Your task to perform on an android device: Clear the cart on amazon.com. Search for dell xps on amazon.com, select the first entry, add it to the cart, then select checkout. Image 0: 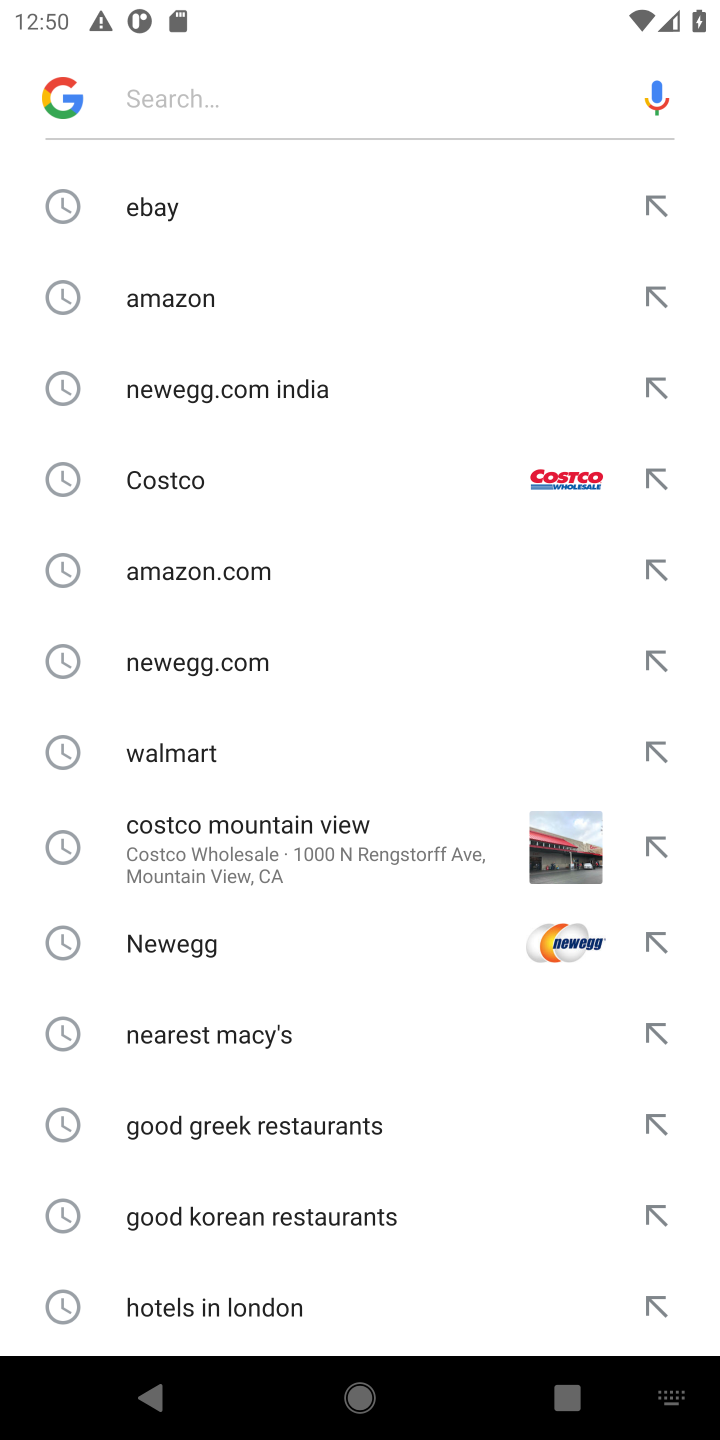
Step 0: press home button
Your task to perform on an android device: Clear the cart on amazon.com. Search for dell xps on amazon.com, select the first entry, add it to the cart, then select checkout. Image 1: 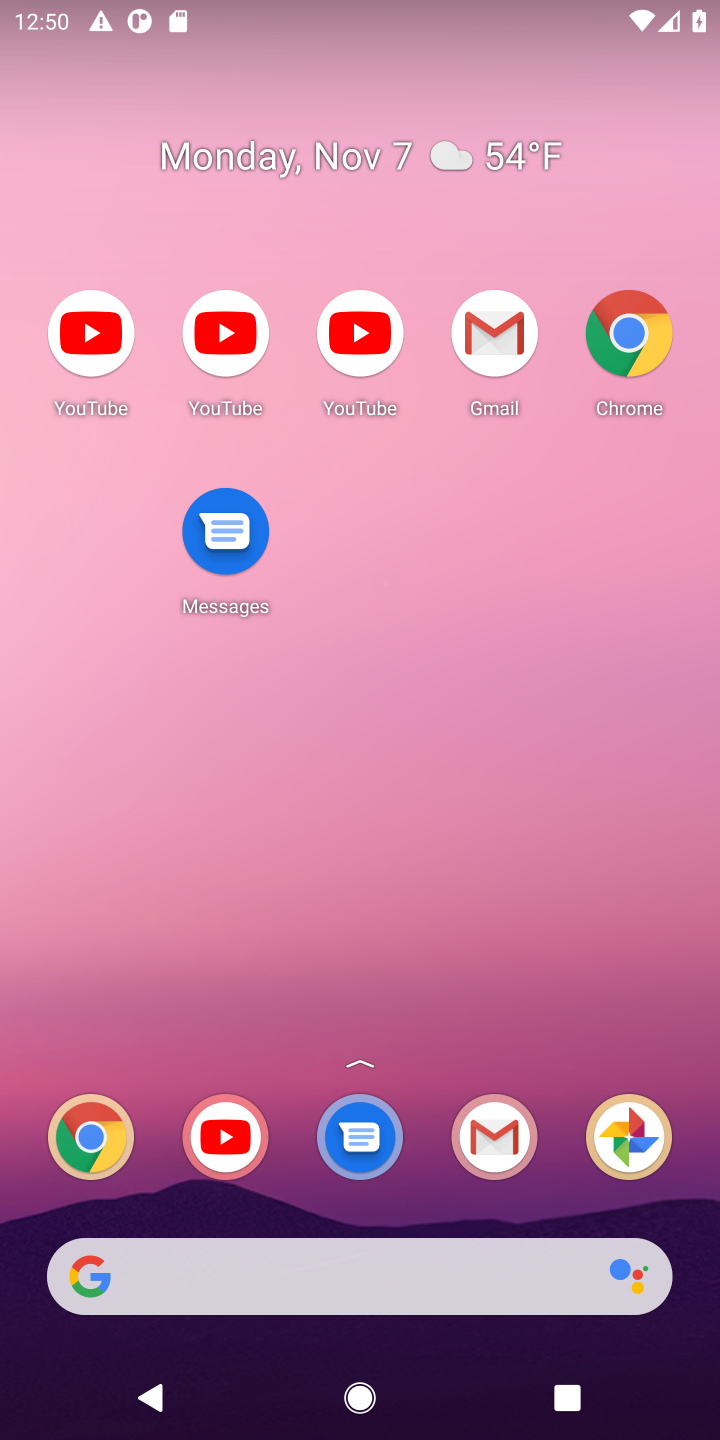
Step 1: drag from (433, 1216) to (430, 266)
Your task to perform on an android device: Clear the cart on amazon.com. Search for dell xps on amazon.com, select the first entry, add it to the cart, then select checkout. Image 2: 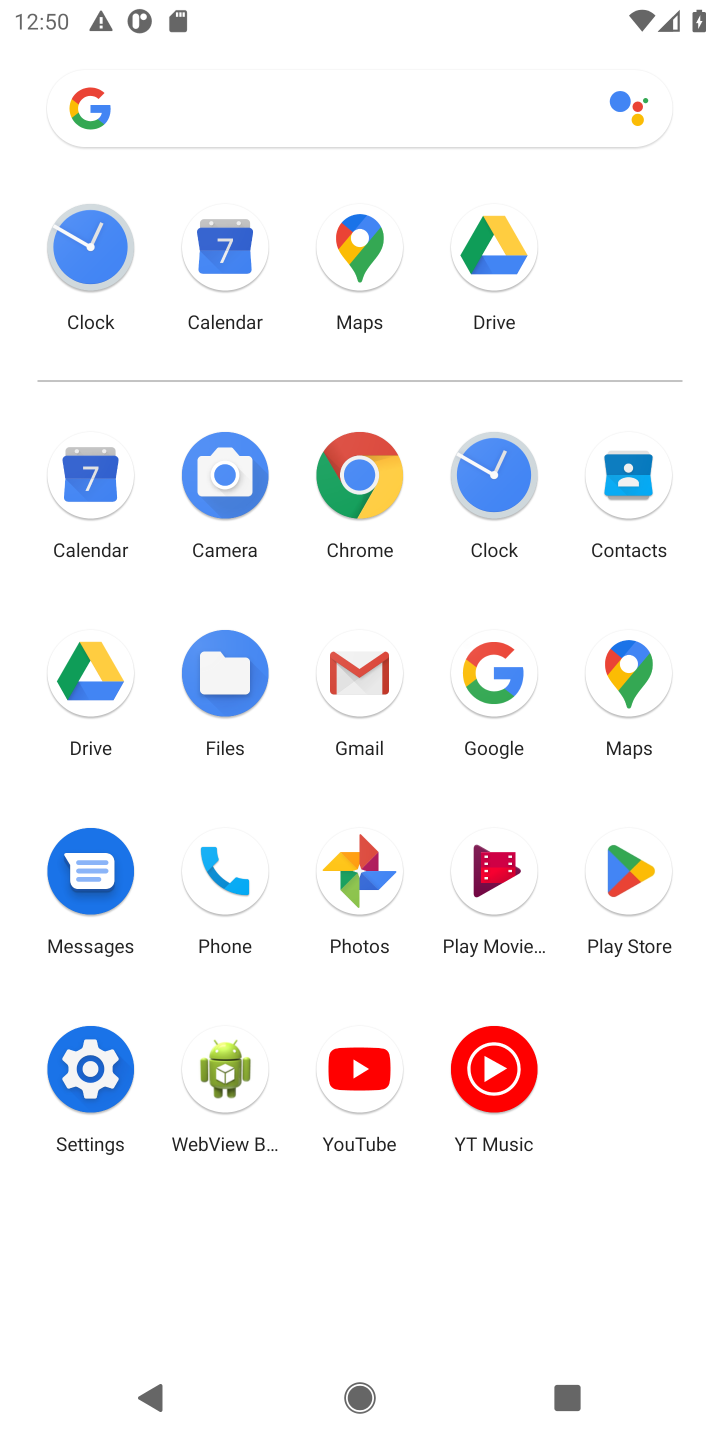
Step 2: click (355, 471)
Your task to perform on an android device: Clear the cart on amazon.com. Search for dell xps on amazon.com, select the first entry, add it to the cart, then select checkout. Image 3: 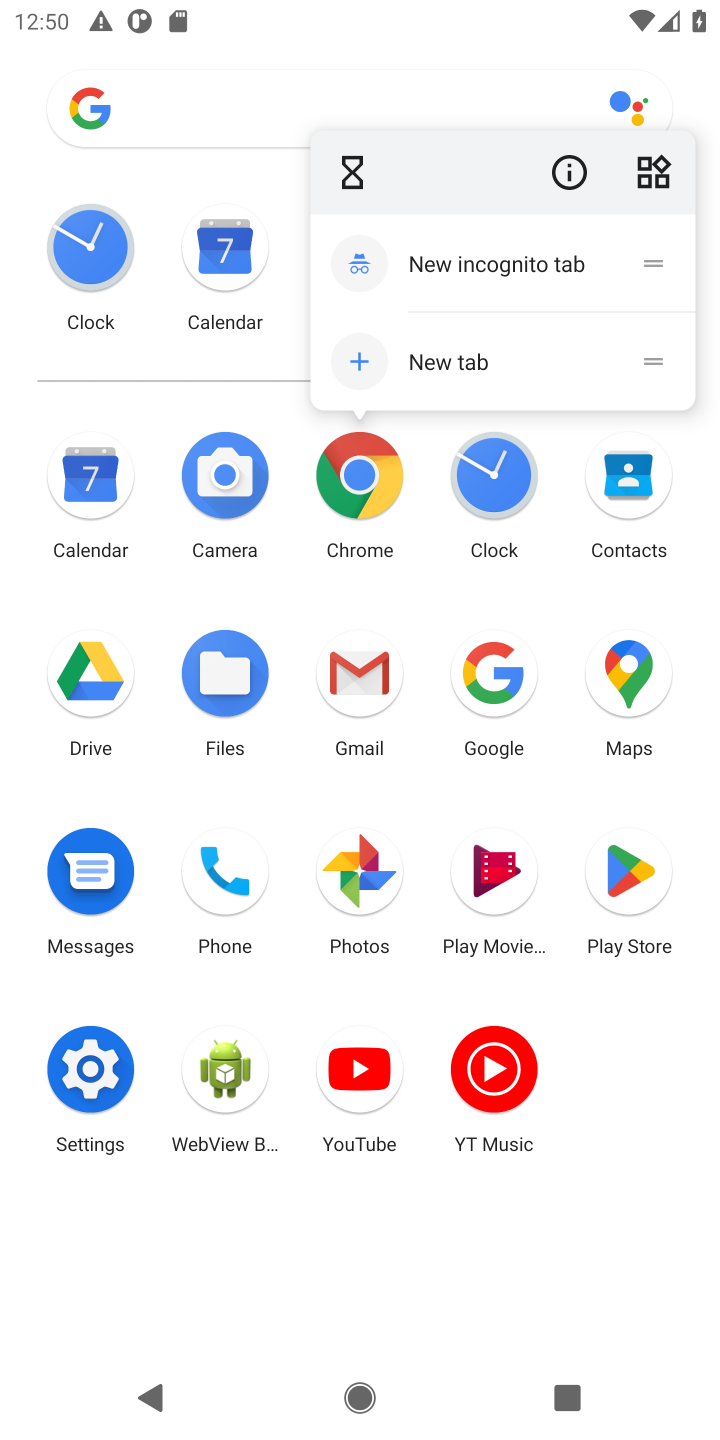
Step 3: click (355, 471)
Your task to perform on an android device: Clear the cart on amazon.com. Search for dell xps on amazon.com, select the first entry, add it to the cart, then select checkout. Image 4: 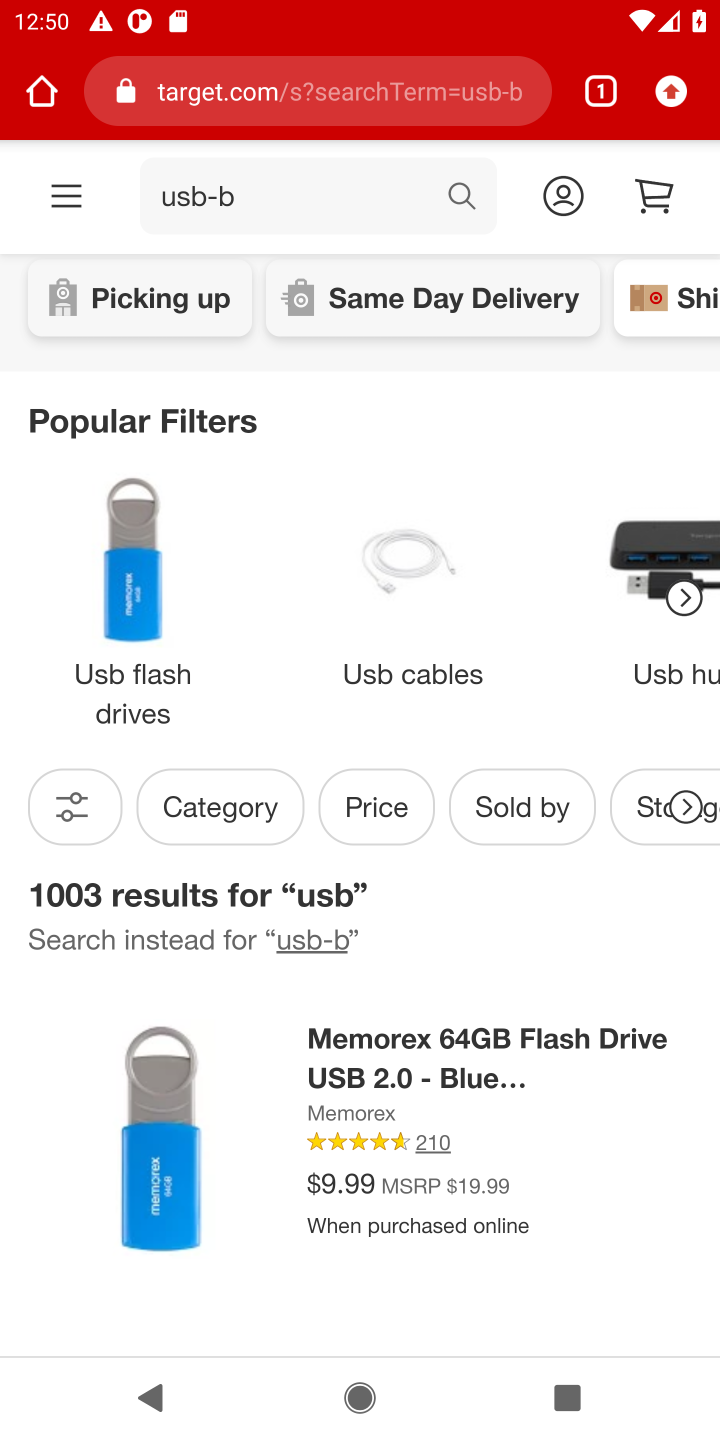
Step 4: click (425, 85)
Your task to perform on an android device: Clear the cart on amazon.com. Search for dell xps on amazon.com, select the first entry, add it to the cart, then select checkout. Image 5: 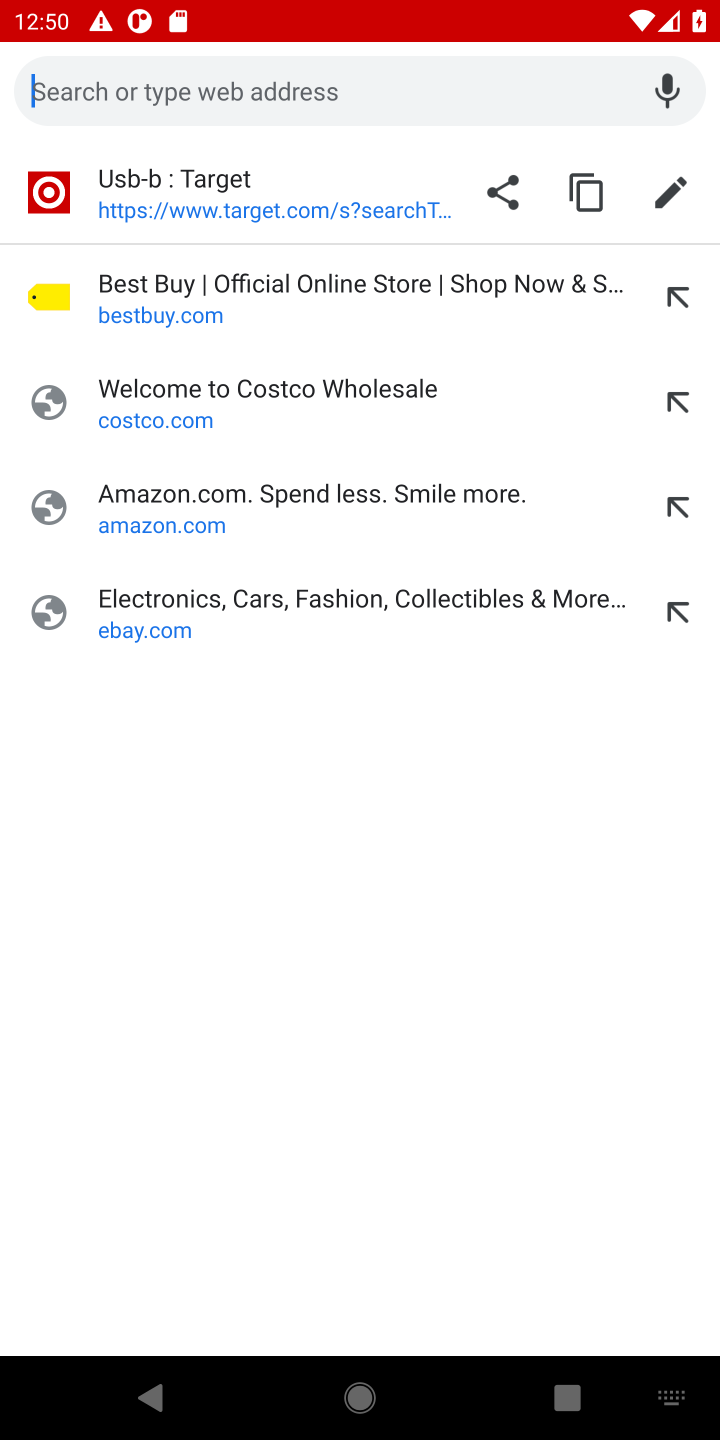
Step 5: type "amazon.com"
Your task to perform on an android device: Clear the cart on amazon.com. Search for dell xps on amazon.com, select the first entry, add it to the cart, then select checkout. Image 6: 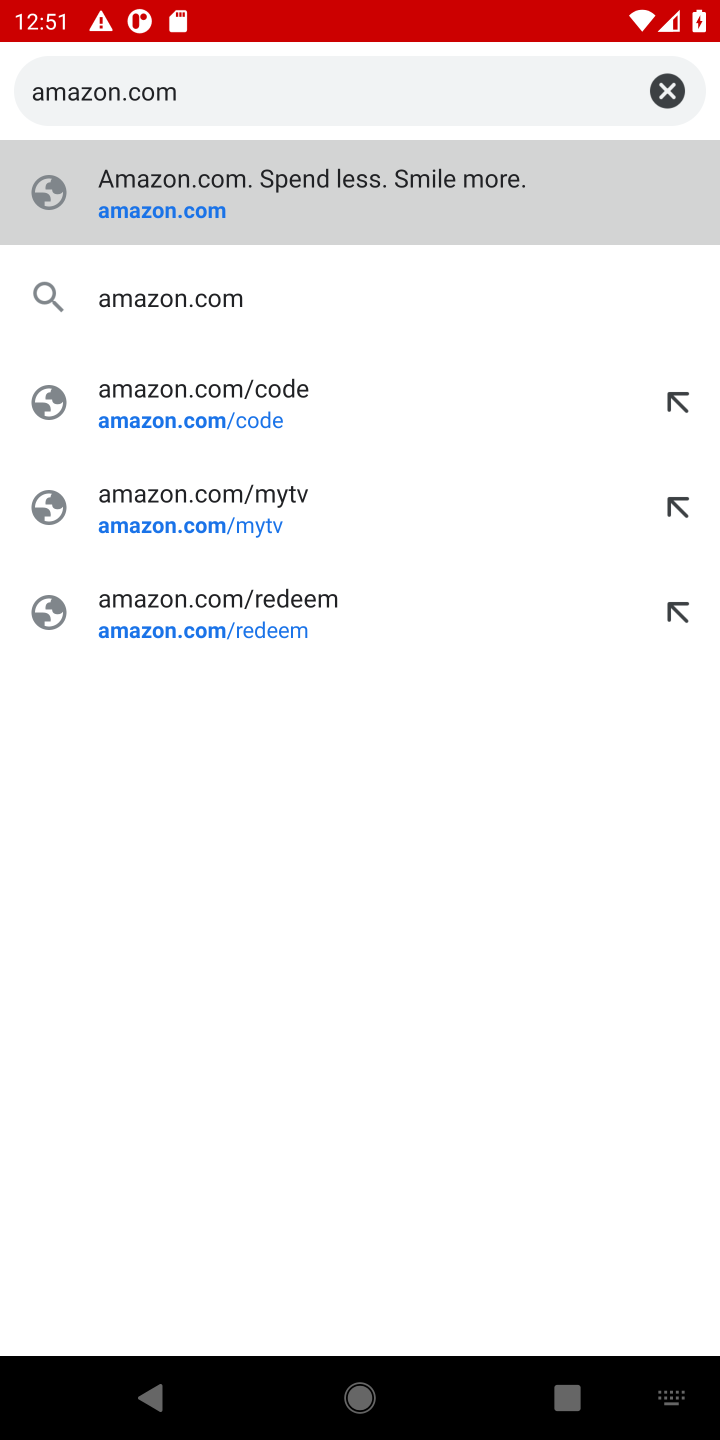
Step 6: press enter
Your task to perform on an android device: Clear the cart on amazon.com. Search for dell xps on amazon.com, select the first entry, add it to the cart, then select checkout. Image 7: 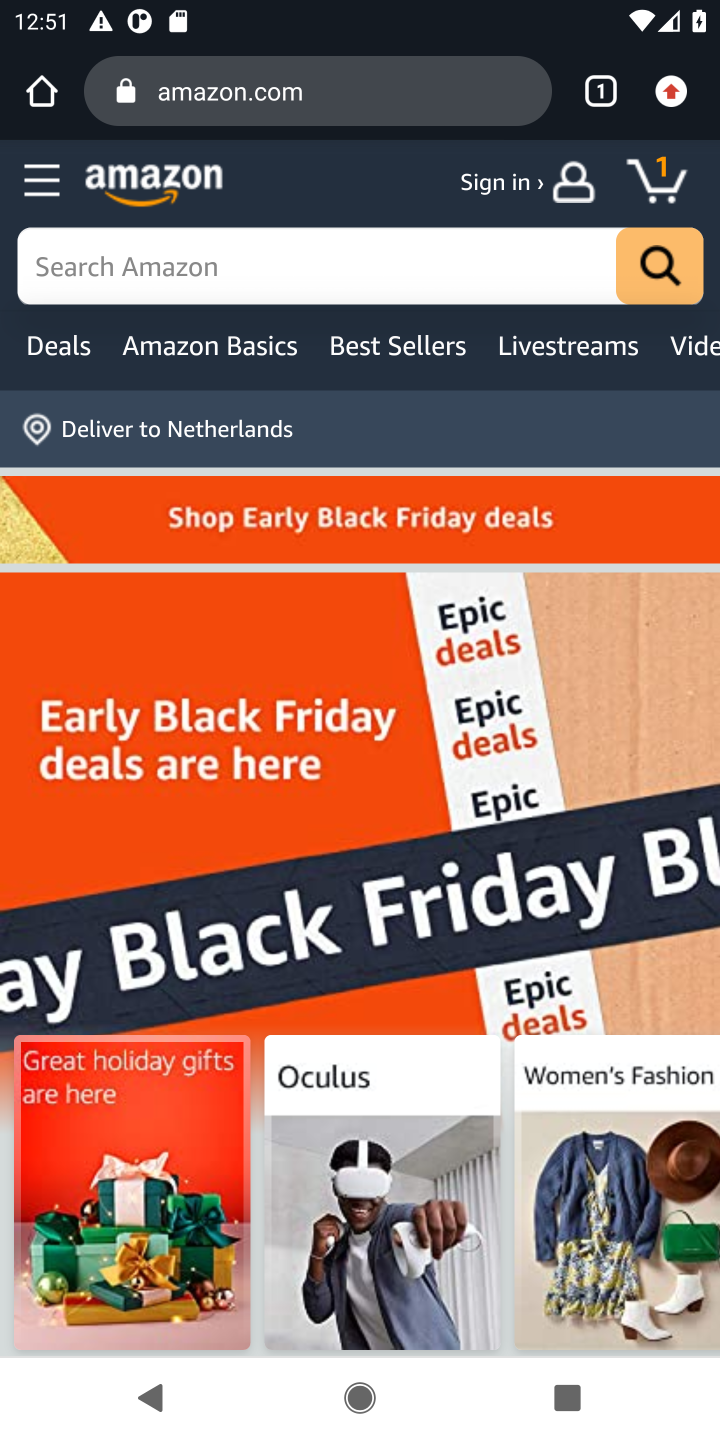
Step 7: click (664, 192)
Your task to perform on an android device: Clear the cart on amazon.com. Search for dell xps on amazon.com, select the first entry, add it to the cart, then select checkout. Image 8: 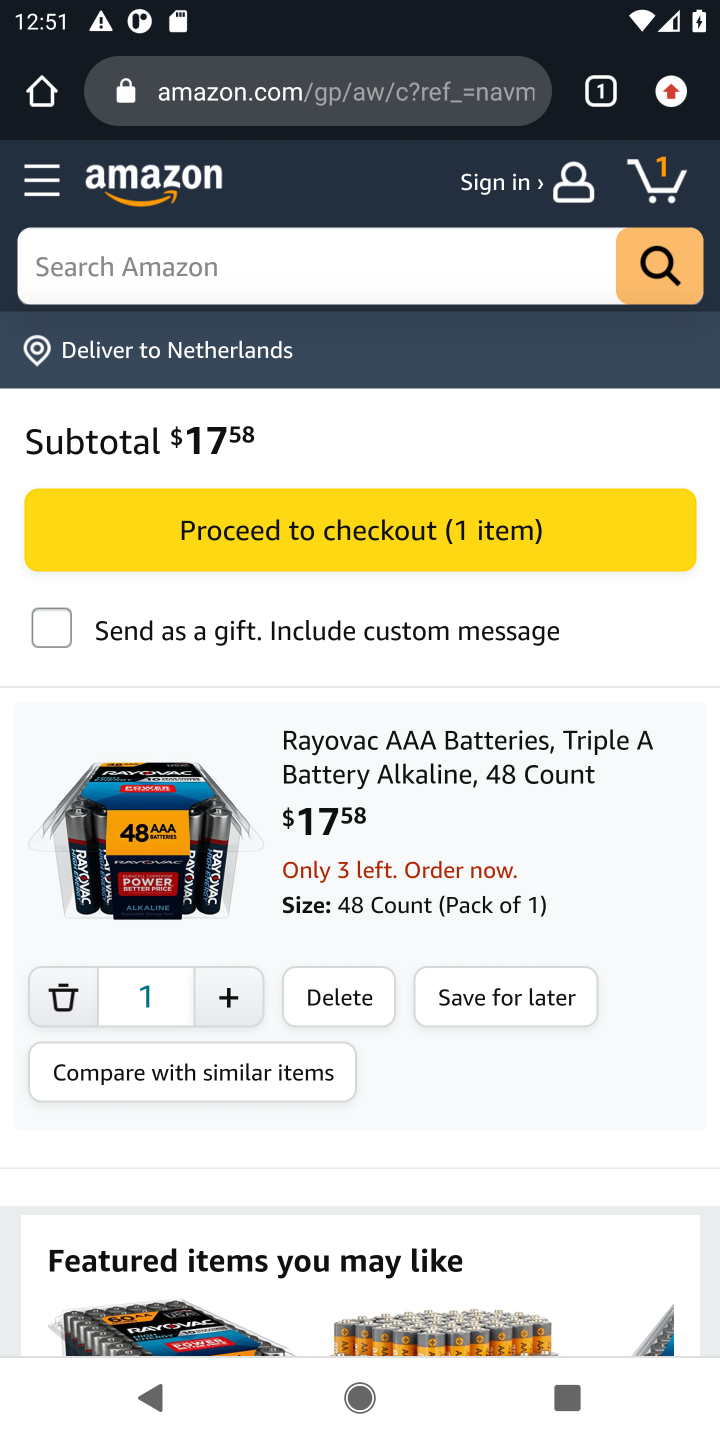
Step 8: click (61, 1009)
Your task to perform on an android device: Clear the cart on amazon.com. Search for dell xps on amazon.com, select the first entry, add it to the cart, then select checkout. Image 9: 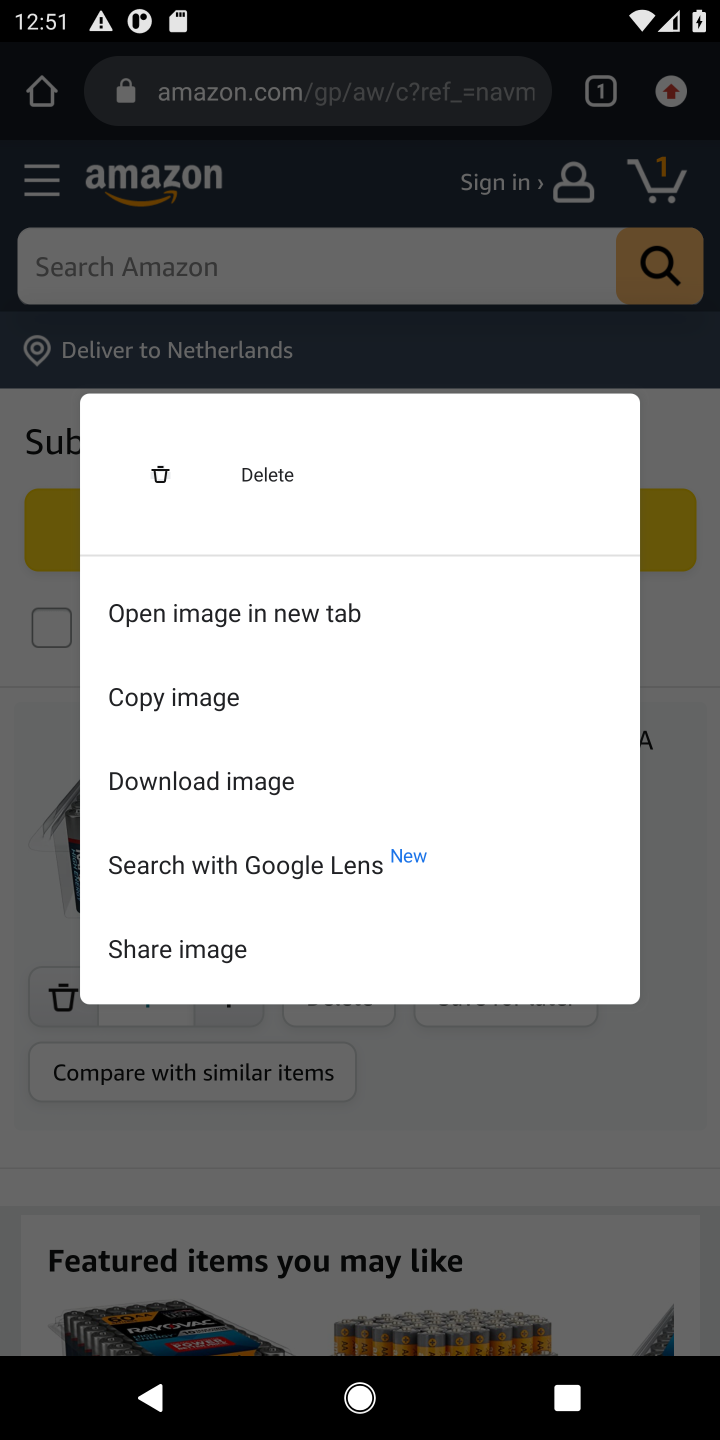
Step 9: click (61, 1009)
Your task to perform on an android device: Clear the cart on amazon.com. Search for dell xps on amazon.com, select the first entry, add it to the cart, then select checkout. Image 10: 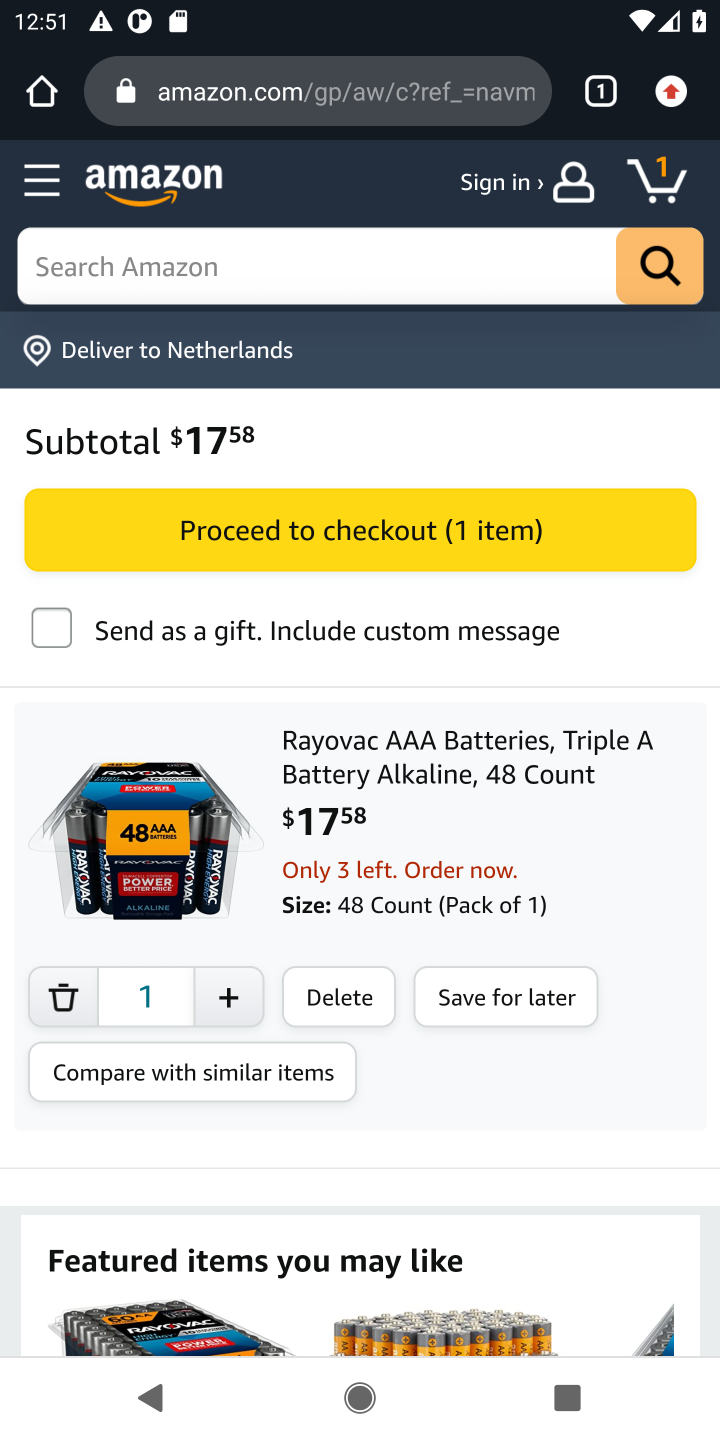
Step 10: click (48, 1001)
Your task to perform on an android device: Clear the cart on amazon.com. Search for dell xps on amazon.com, select the first entry, add it to the cart, then select checkout. Image 11: 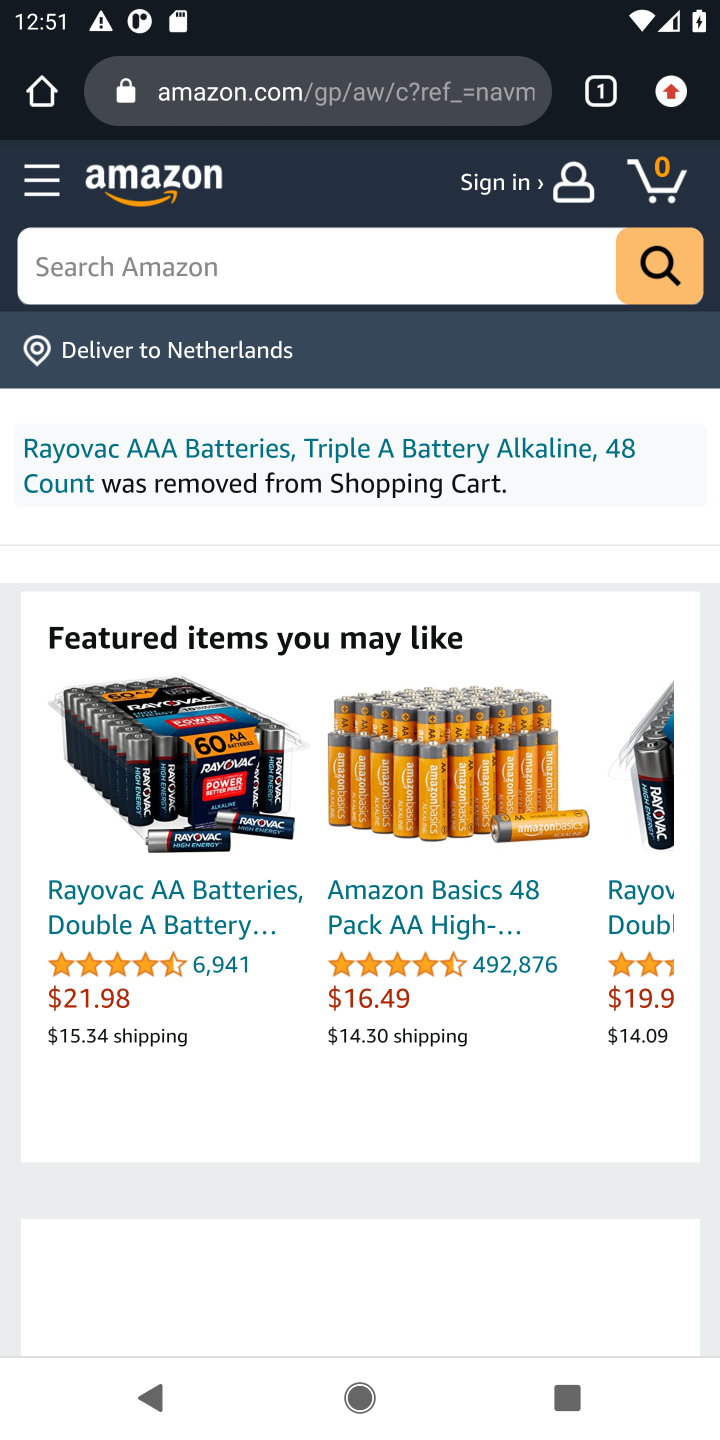
Step 11: click (322, 275)
Your task to perform on an android device: Clear the cart on amazon.com. Search for dell xps on amazon.com, select the first entry, add it to the cart, then select checkout. Image 12: 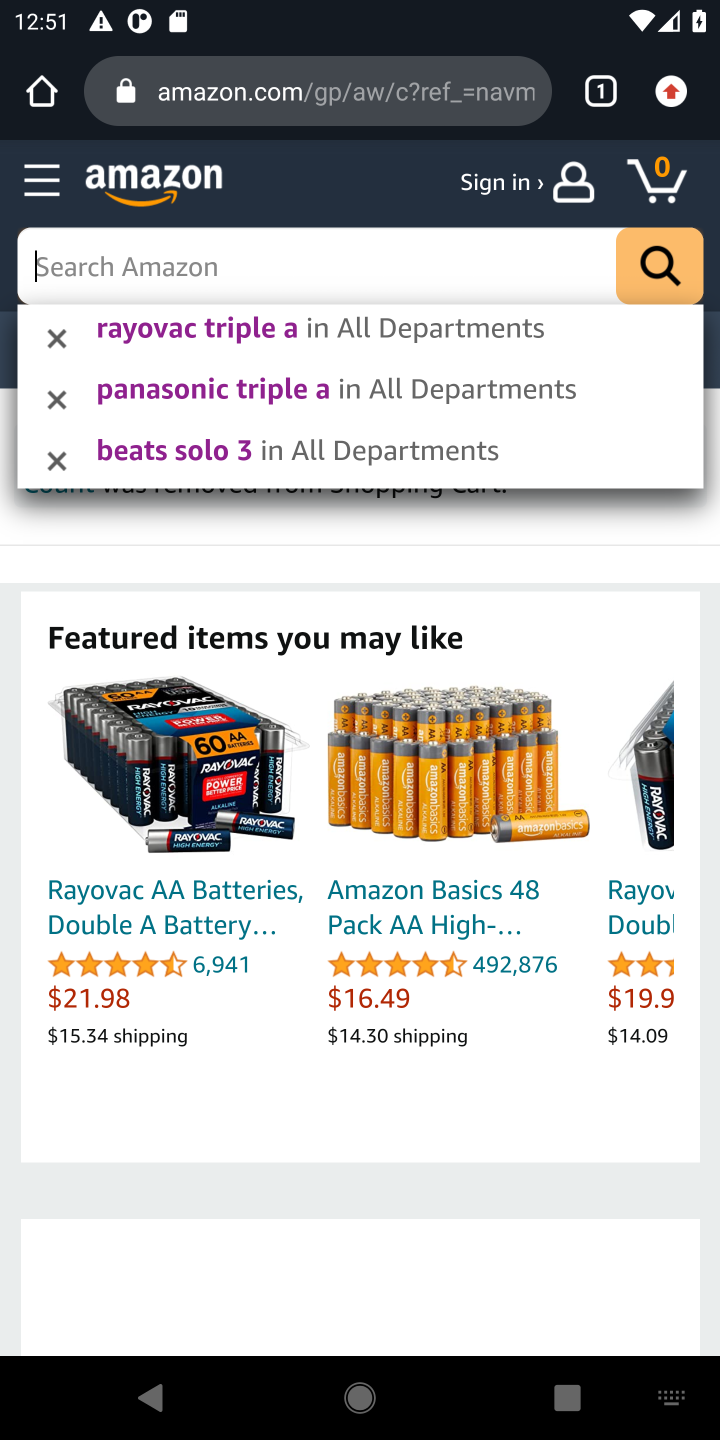
Step 12: type "dell xps"
Your task to perform on an android device: Clear the cart on amazon.com. Search for dell xps on amazon.com, select the first entry, add it to the cart, then select checkout. Image 13: 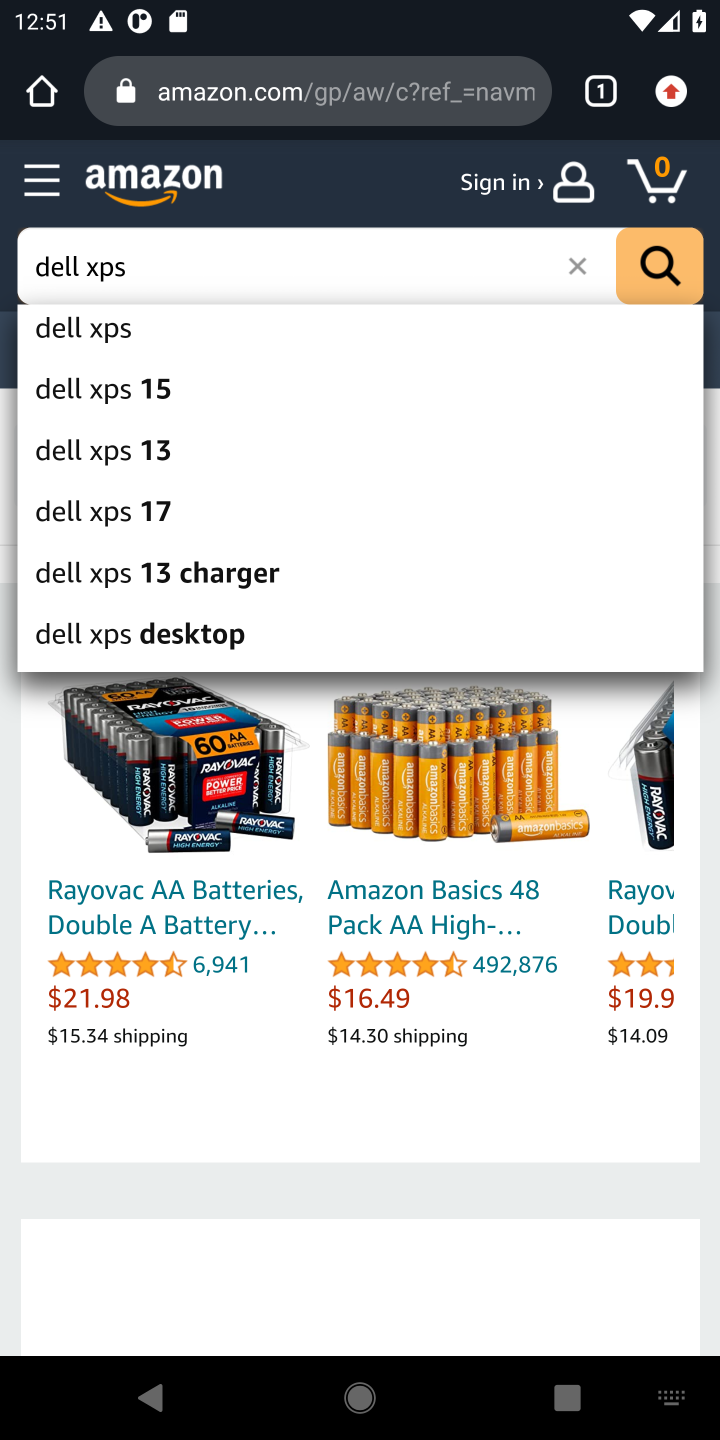
Step 13: press enter
Your task to perform on an android device: Clear the cart on amazon.com. Search for dell xps on amazon.com, select the first entry, add it to the cart, then select checkout. Image 14: 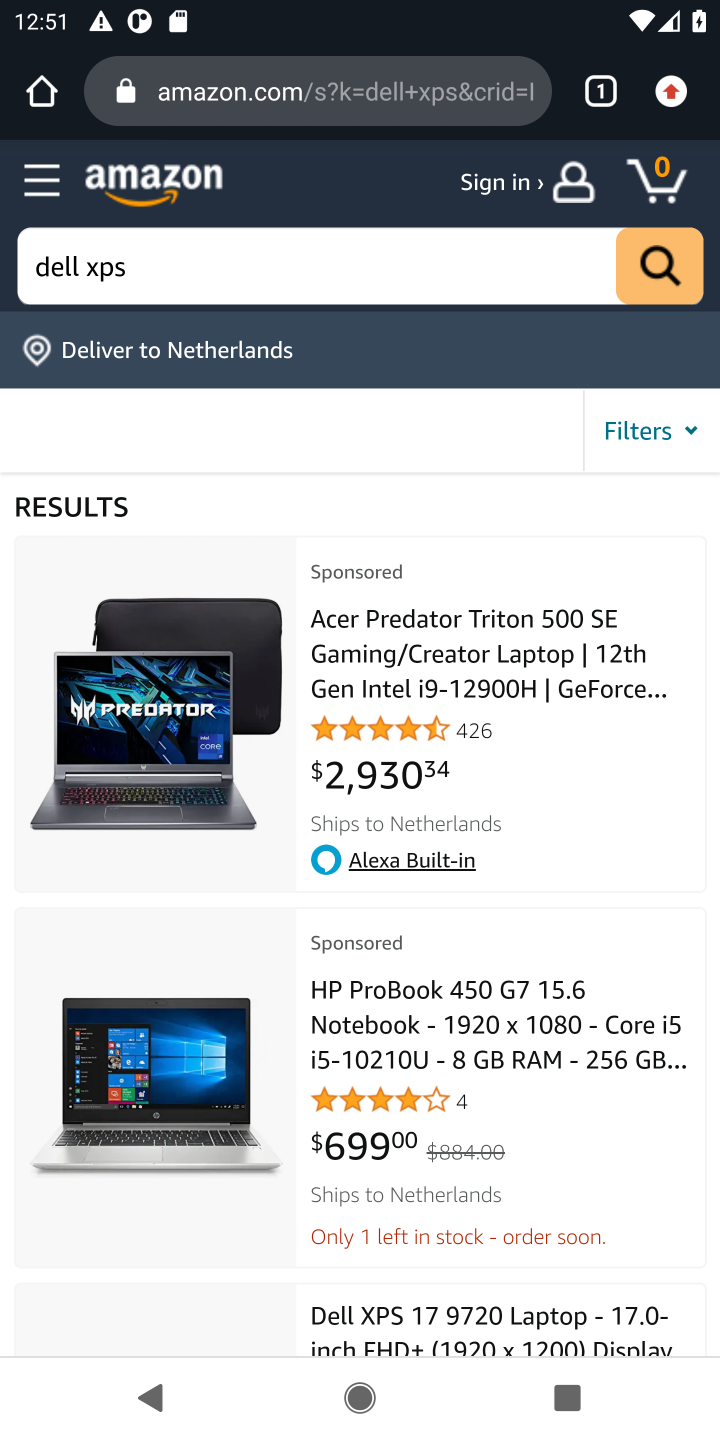
Step 14: drag from (471, 1259) to (393, 744)
Your task to perform on an android device: Clear the cart on amazon.com. Search for dell xps on amazon.com, select the first entry, add it to the cart, then select checkout. Image 15: 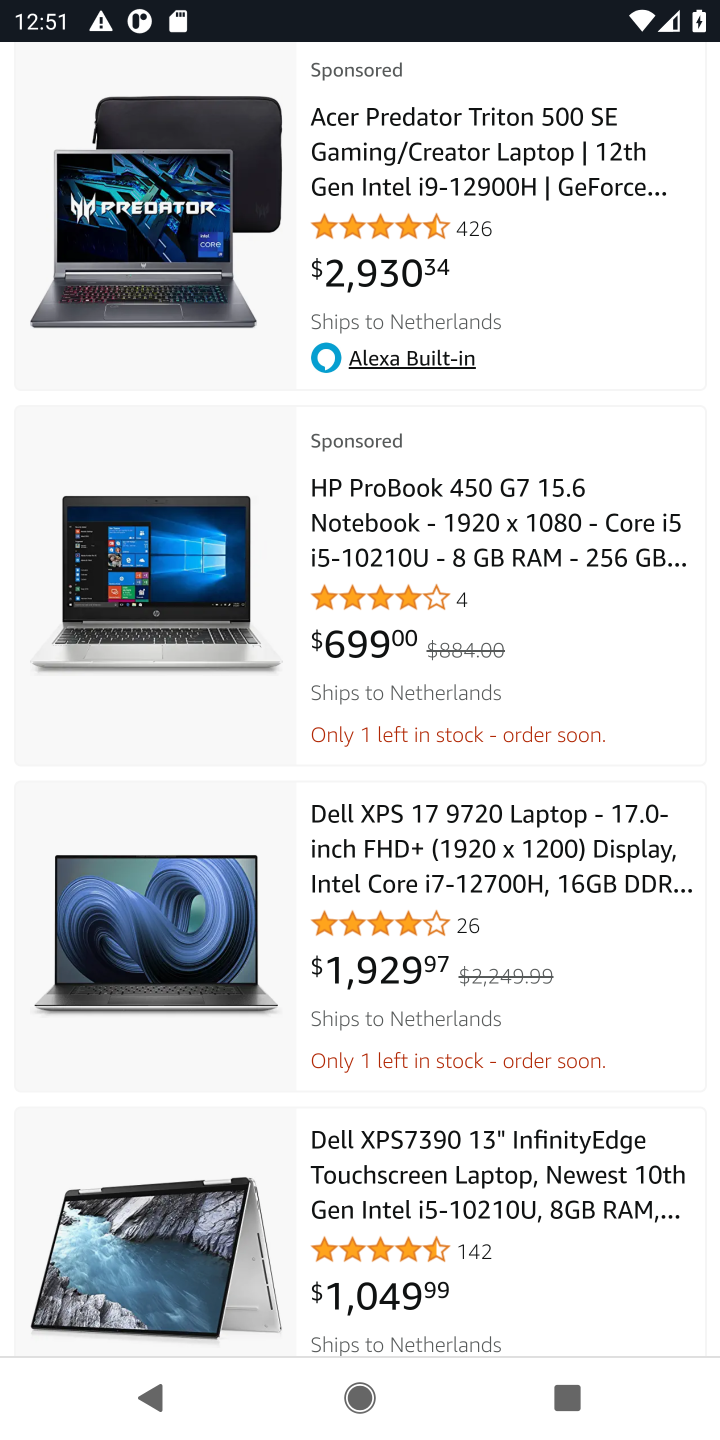
Step 15: click (417, 858)
Your task to perform on an android device: Clear the cart on amazon.com. Search for dell xps on amazon.com, select the first entry, add it to the cart, then select checkout. Image 16: 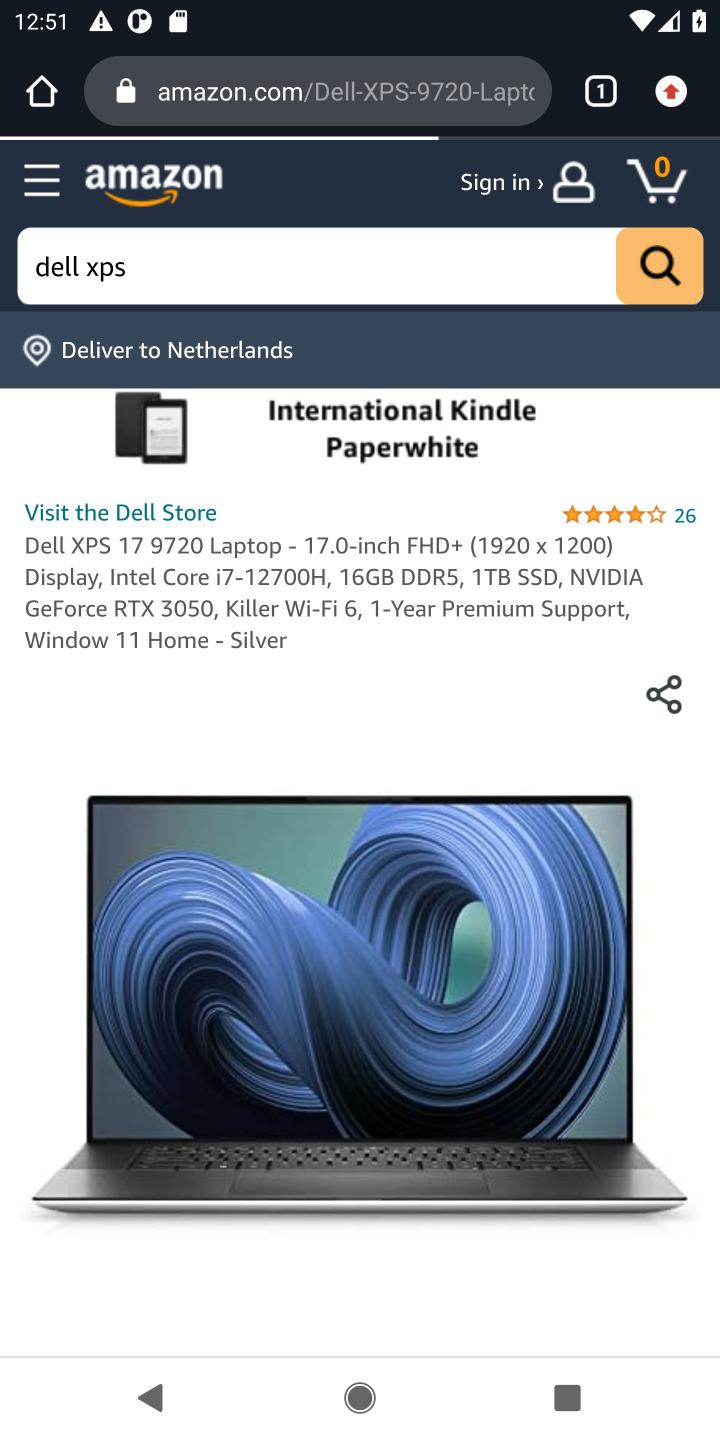
Step 16: drag from (341, 1148) to (405, 505)
Your task to perform on an android device: Clear the cart on amazon.com. Search for dell xps on amazon.com, select the first entry, add it to the cart, then select checkout. Image 17: 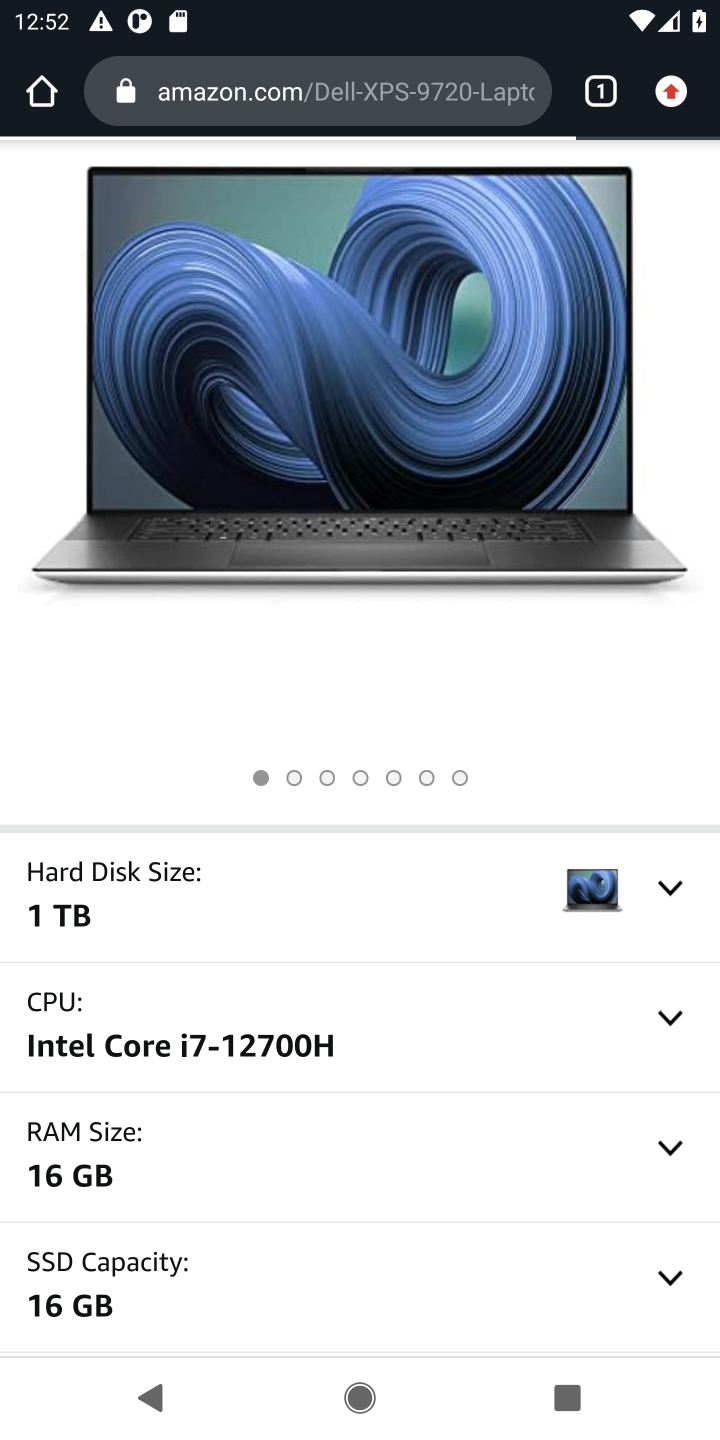
Step 17: drag from (372, 1049) to (403, 331)
Your task to perform on an android device: Clear the cart on amazon.com. Search for dell xps on amazon.com, select the first entry, add it to the cart, then select checkout. Image 18: 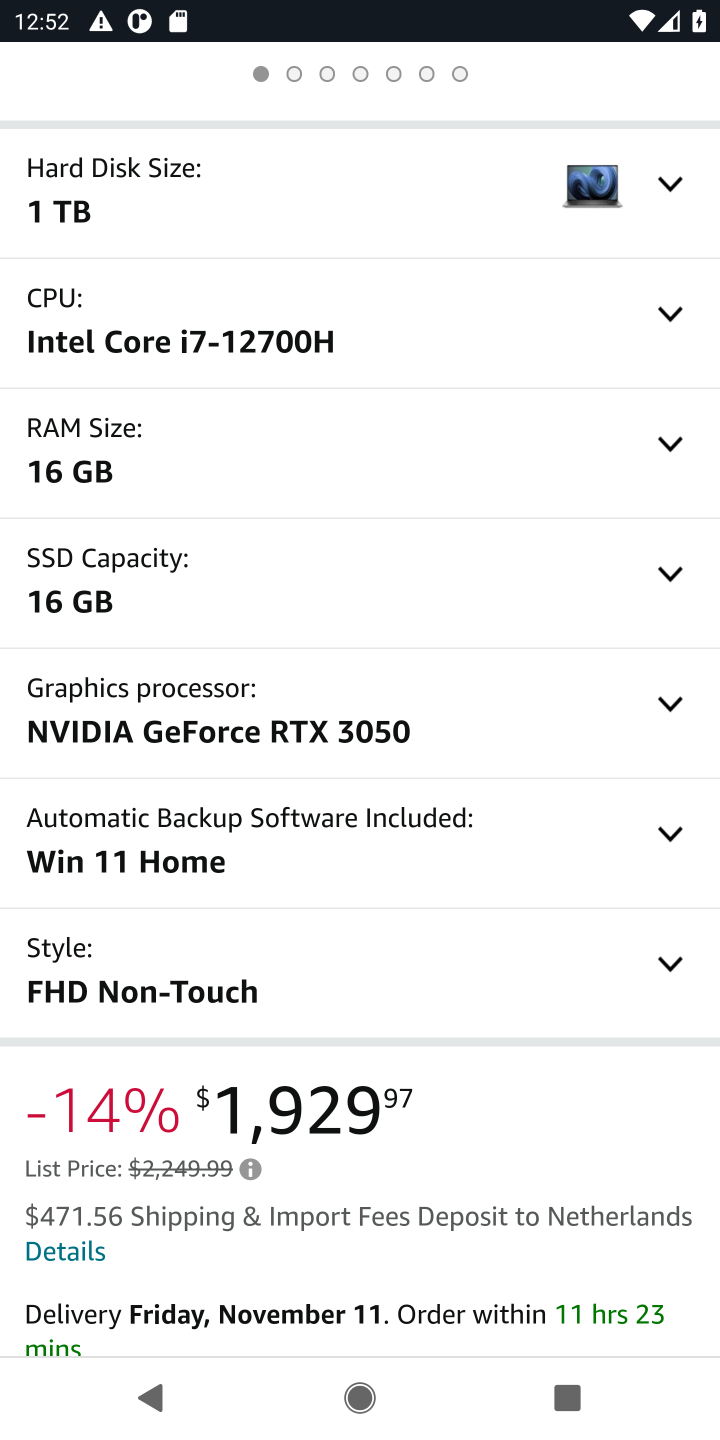
Step 18: drag from (306, 1134) to (283, 273)
Your task to perform on an android device: Clear the cart on amazon.com. Search for dell xps on amazon.com, select the first entry, add it to the cart, then select checkout. Image 19: 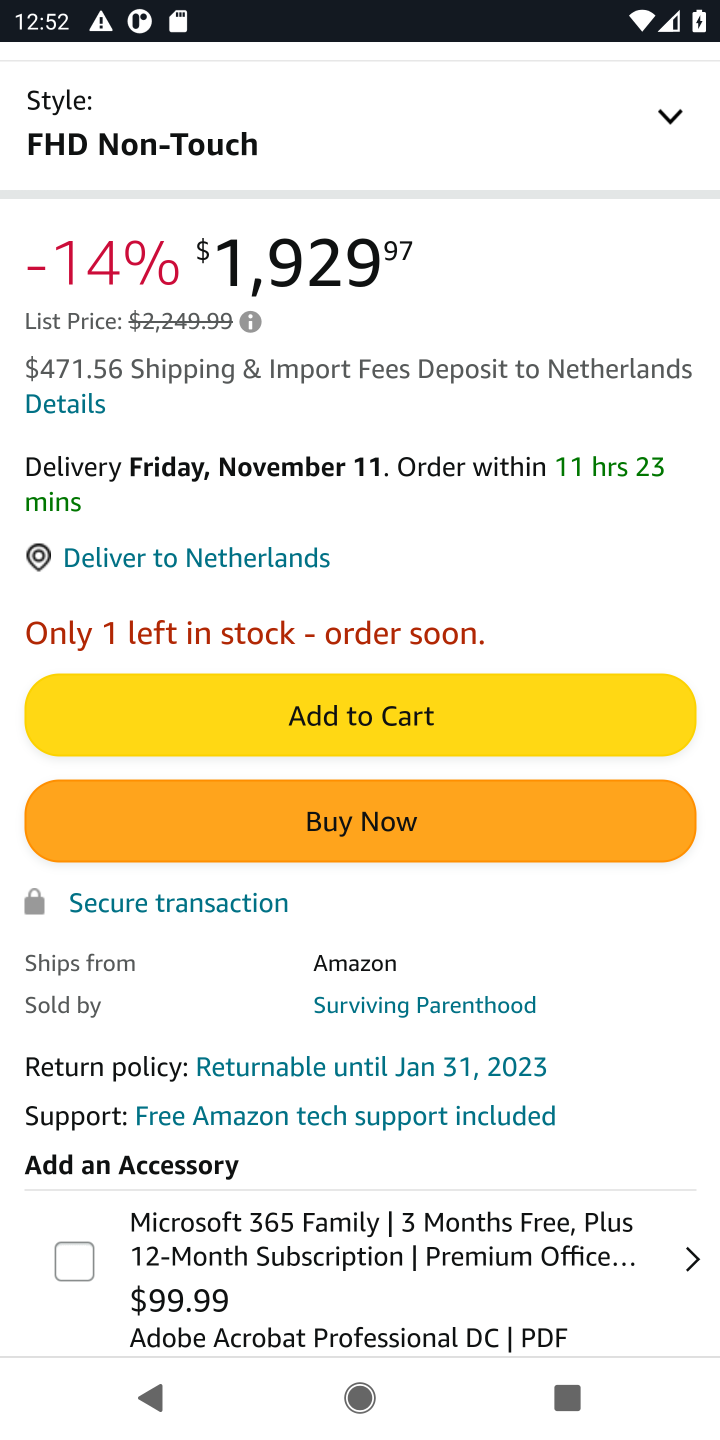
Step 19: click (391, 705)
Your task to perform on an android device: Clear the cart on amazon.com. Search for dell xps on amazon.com, select the first entry, add it to the cart, then select checkout. Image 20: 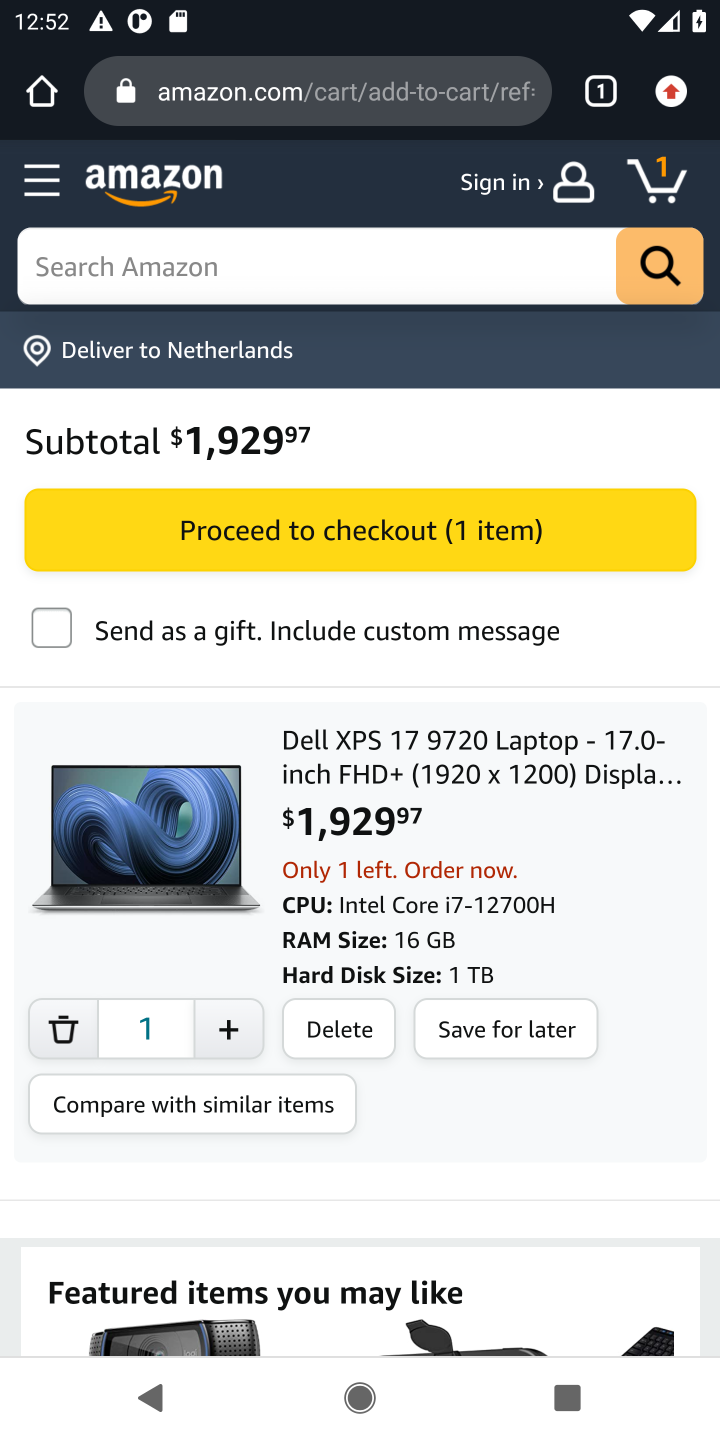
Step 20: click (413, 524)
Your task to perform on an android device: Clear the cart on amazon.com. Search for dell xps on amazon.com, select the first entry, add it to the cart, then select checkout. Image 21: 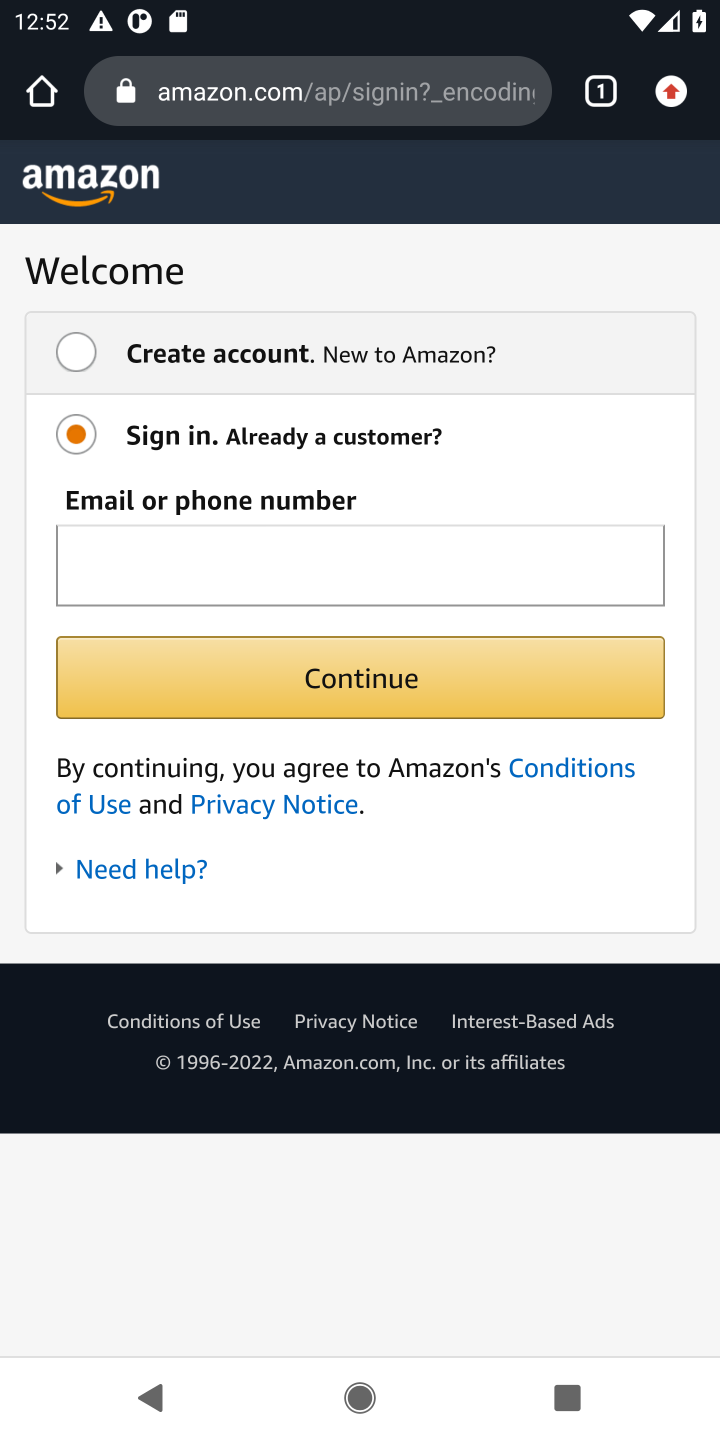
Step 21: task complete